Your task to perform on an android device: turn off data saver in the chrome app Image 0: 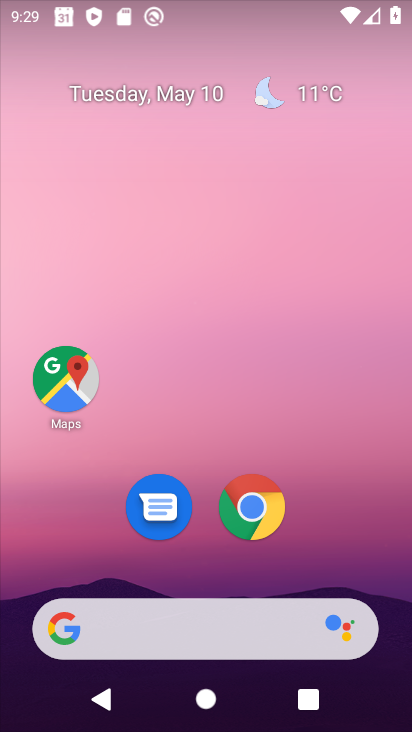
Step 0: click (250, 495)
Your task to perform on an android device: turn off data saver in the chrome app Image 1: 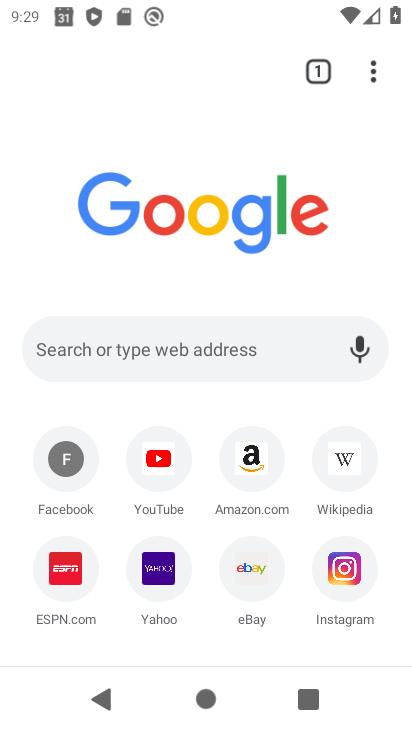
Step 1: click (366, 67)
Your task to perform on an android device: turn off data saver in the chrome app Image 2: 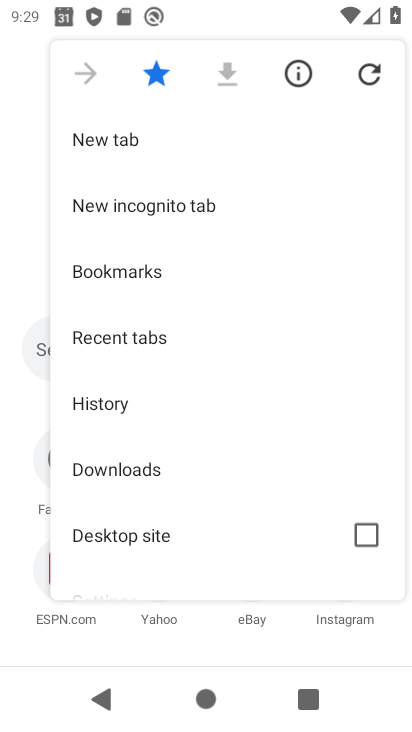
Step 2: drag from (126, 505) to (186, 165)
Your task to perform on an android device: turn off data saver in the chrome app Image 3: 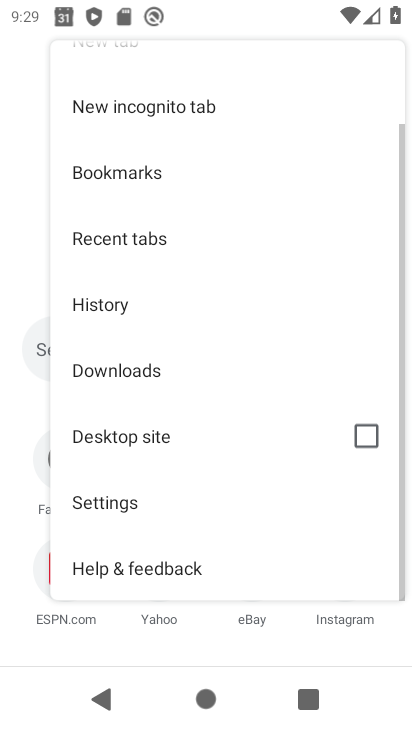
Step 3: click (122, 495)
Your task to perform on an android device: turn off data saver in the chrome app Image 4: 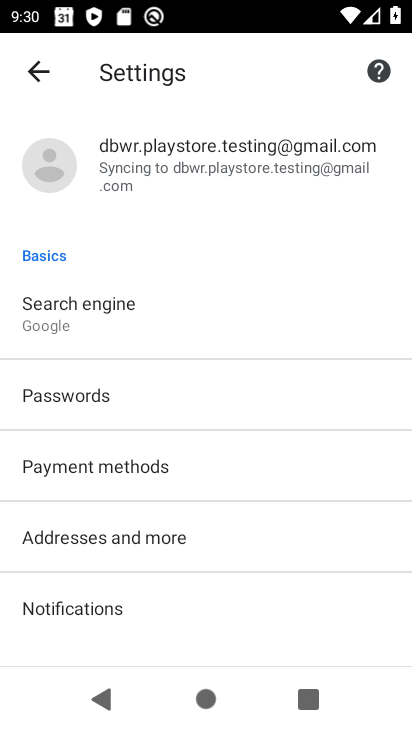
Step 4: drag from (140, 624) to (170, 202)
Your task to perform on an android device: turn off data saver in the chrome app Image 5: 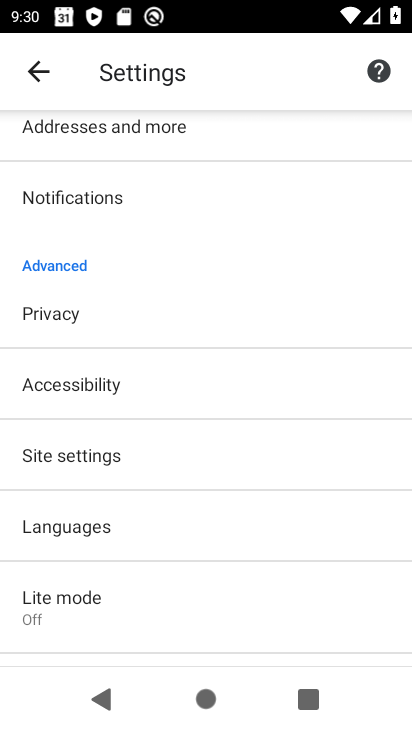
Step 5: click (142, 588)
Your task to perform on an android device: turn off data saver in the chrome app Image 6: 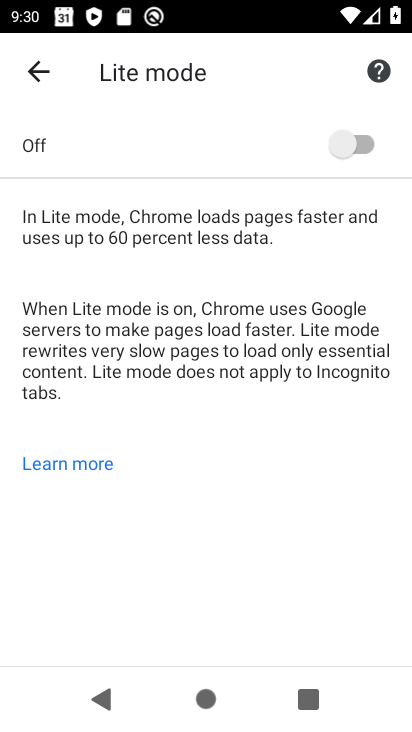
Step 6: task complete